Your task to perform on an android device: turn pop-ups on in chrome Image 0: 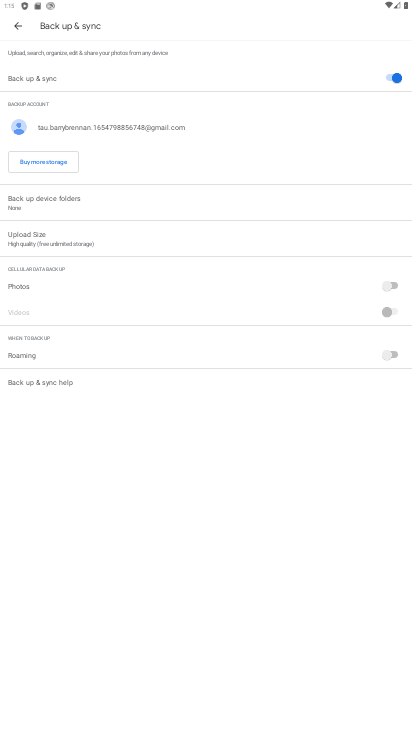
Step 0: press home button
Your task to perform on an android device: turn pop-ups on in chrome Image 1: 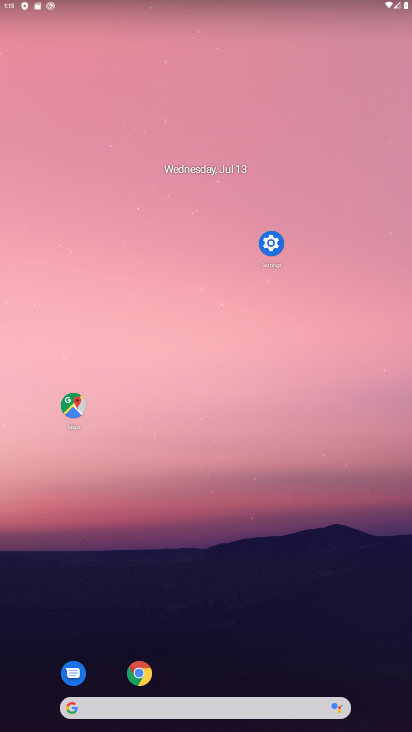
Step 1: click (143, 679)
Your task to perform on an android device: turn pop-ups on in chrome Image 2: 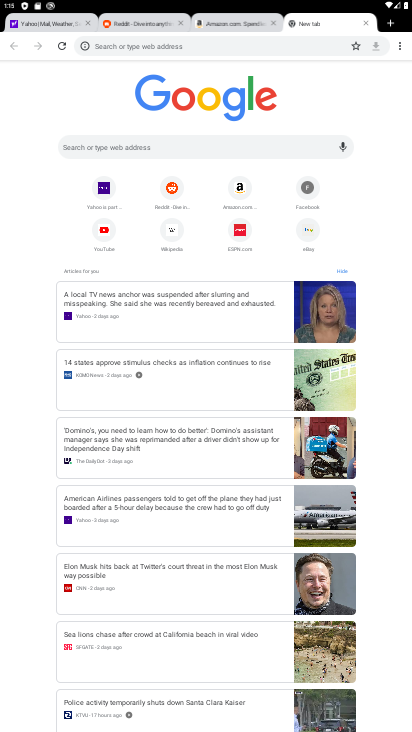
Step 2: drag from (401, 50) to (305, 211)
Your task to perform on an android device: turn pop-ups on in chrome Image 3: 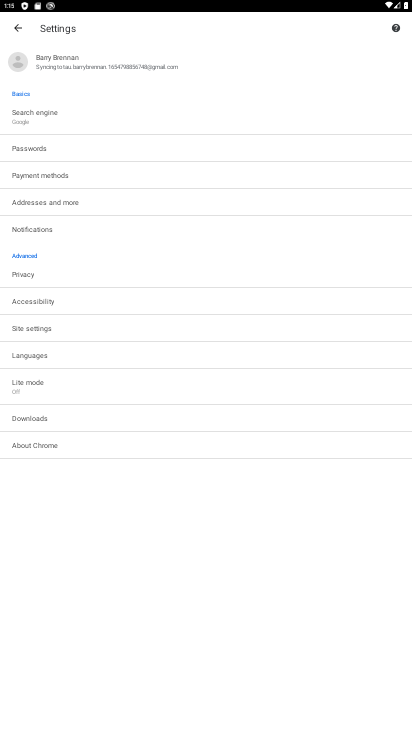
Step 3: click (39, 332)
Your task to perform on an android device: turn pop-ups on in chrome Image 4: 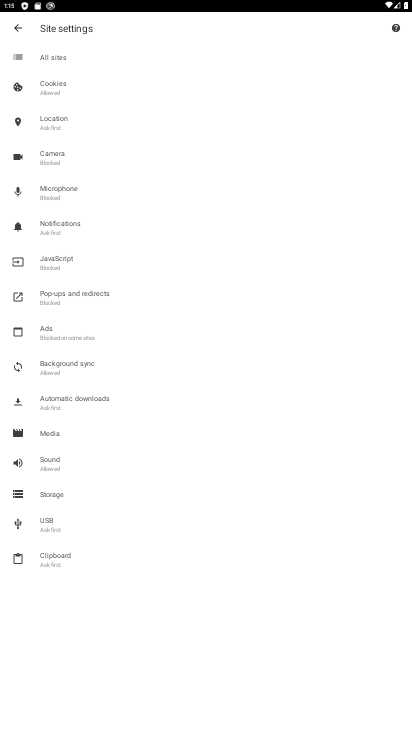
Step 4: click (62, 291)
Your task to perform on an android device: turn pop-ups on in chrome Image 5: 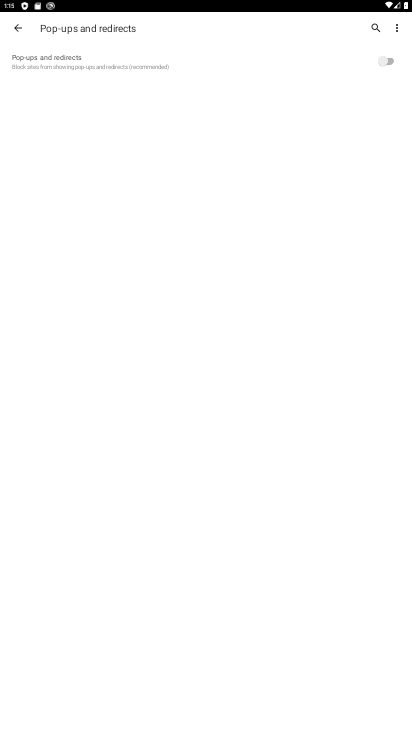
Step 5: click (390, 59)
Your task to perform on an android device: turn pop-ups on in chrome Image 6: 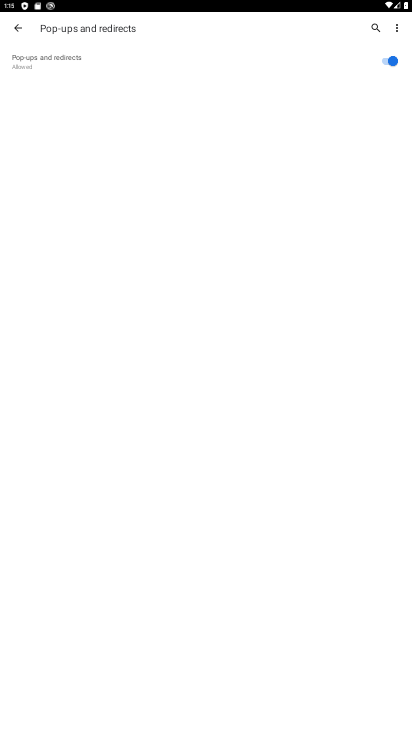
Step 6: task complete